Your task to perform on an android device: turn on showing notifications on the lock screen Image 0: 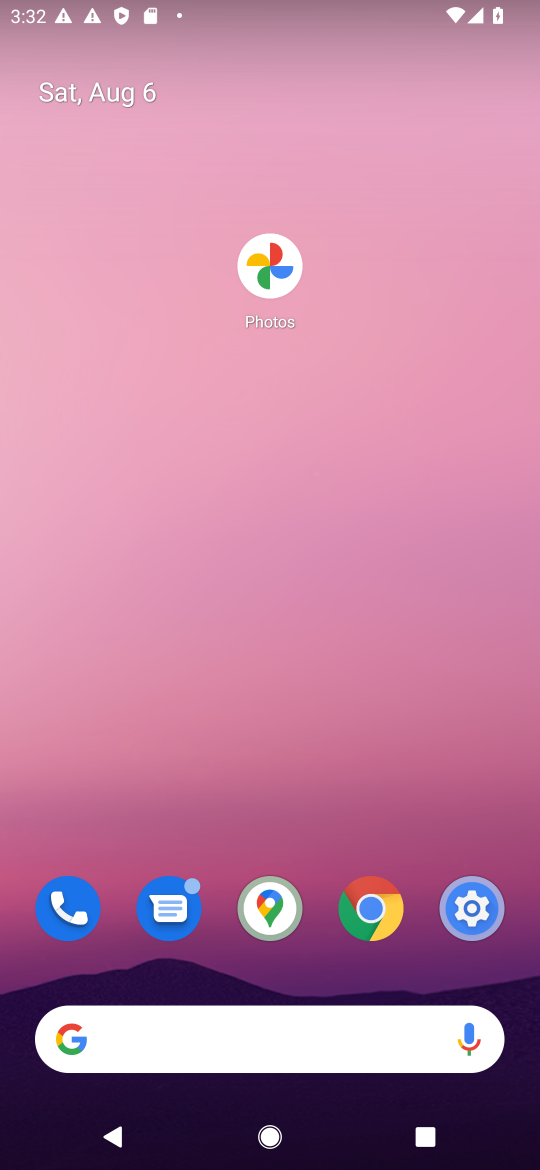
Step 0: drag from (316, 908) to (320, 410)
Your task to perform on an android device: turn on showing notifications on the lock screen Image 1: 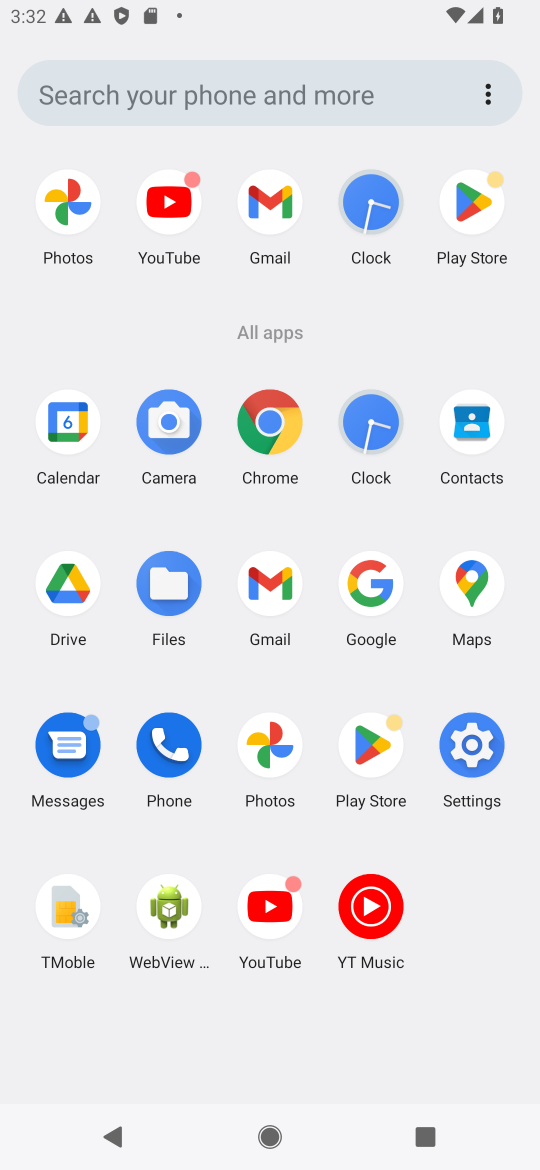
Step 1: click (471, 779)
Your task to perform on an android device: turn on showing notifications on the lock screen Image 2: 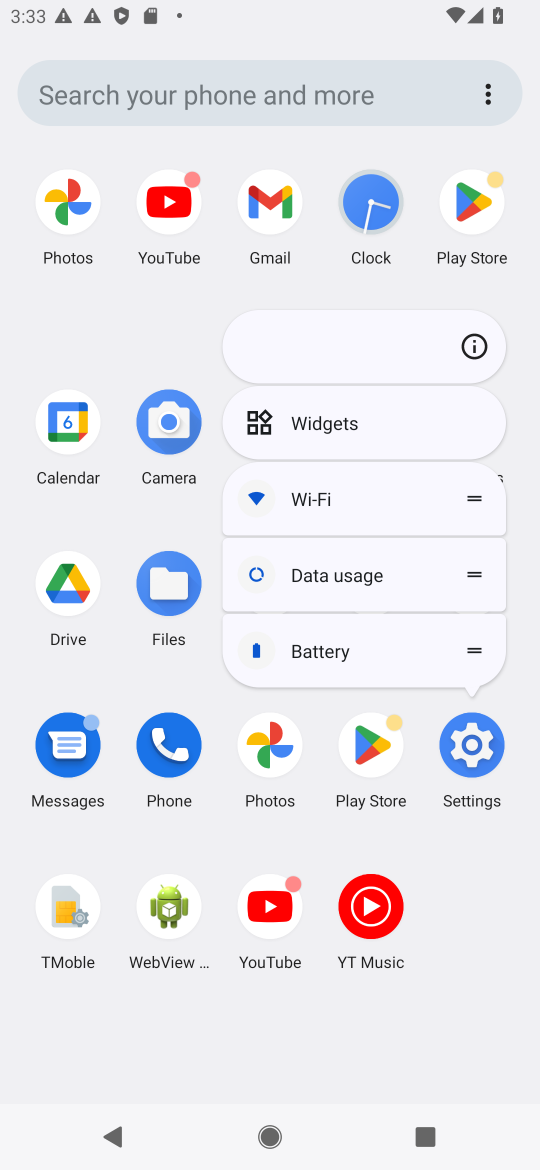
Step 2: click (471, 779)
Your task to perform on an android device: turn on showing notifications on the lock screen Image 3: 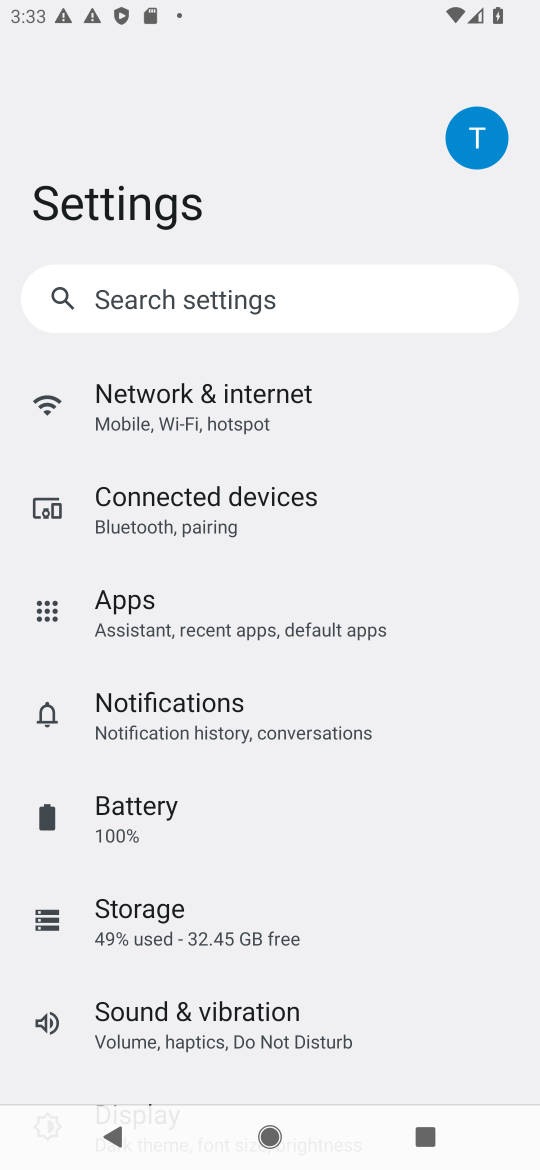
Step 3: click (253, 723)
Your task to perform on an android device: turn on showing notifications on the lock screen Image 4: 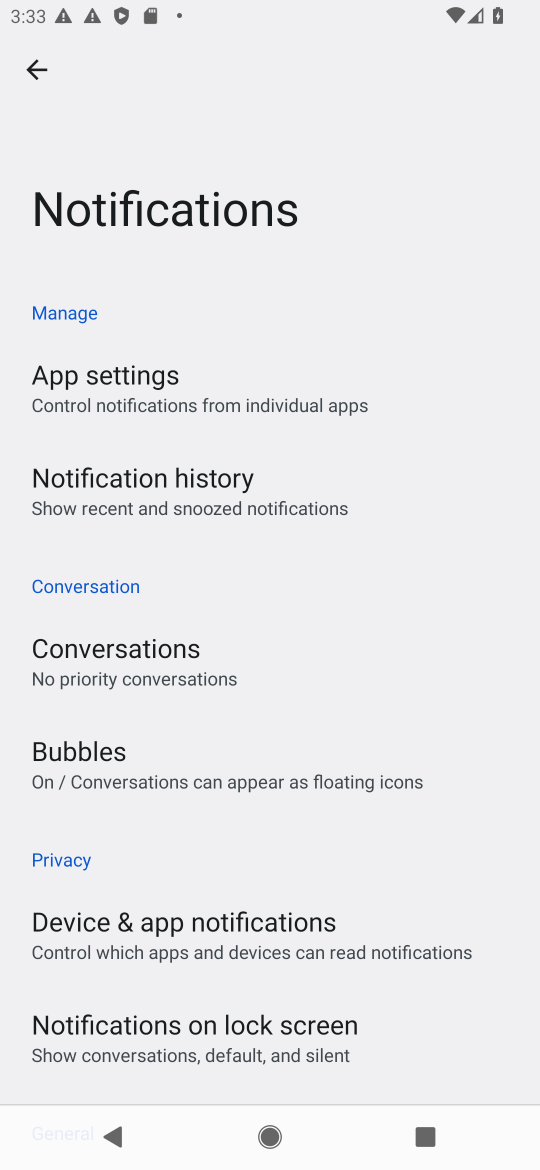
Step 4: drag from (169, 954) to (198, 589)
Your task to perform on an android device: turn on showing notifications on the lock screen Image 5: 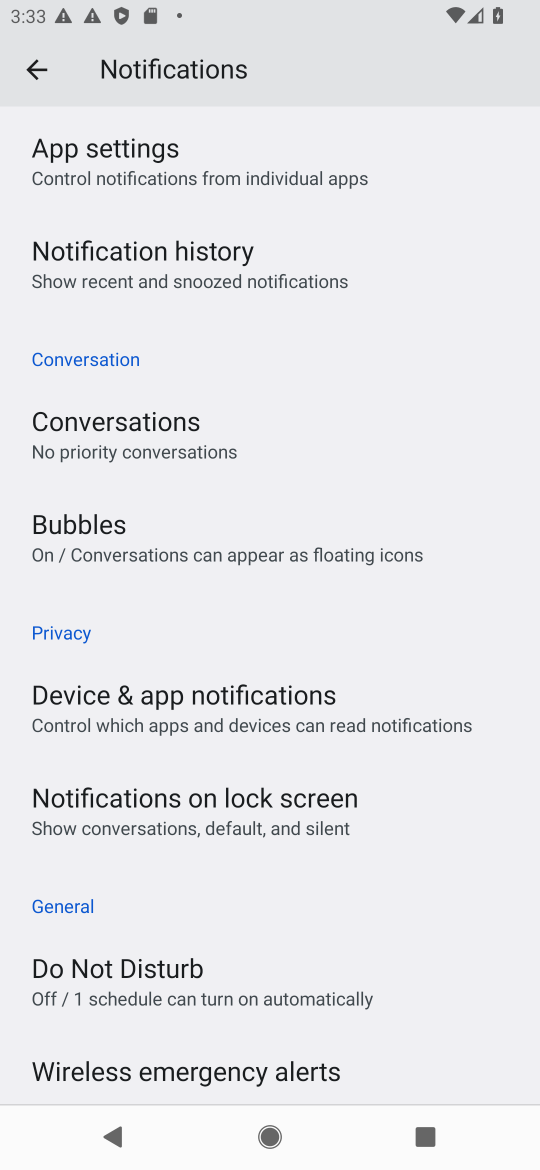
Step 5: click (198, 814)
Your task to perform on an android device: turn on showing notifications on the lock screen Image 6: 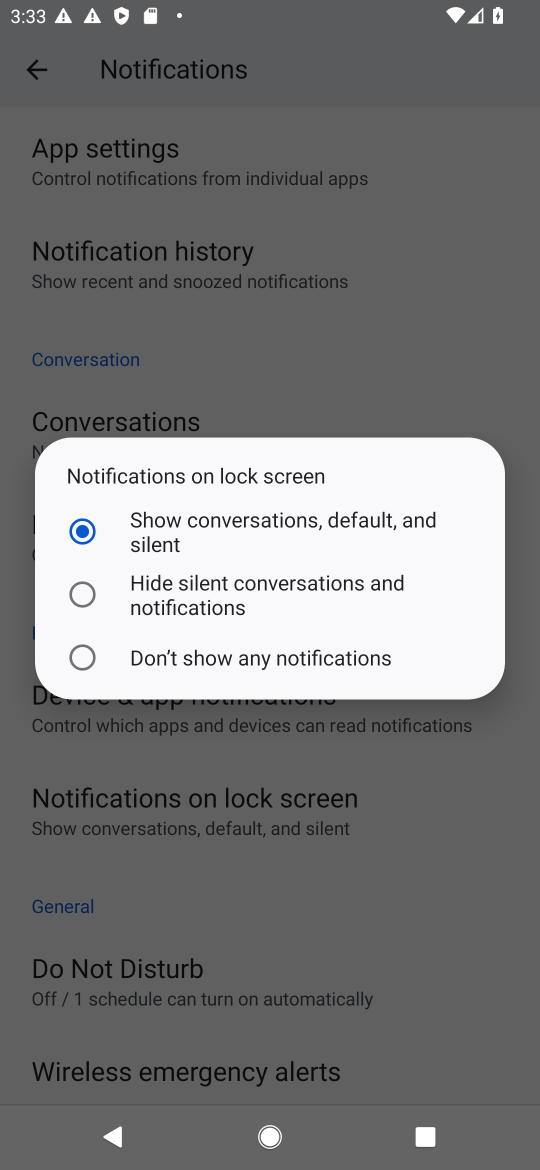
Step 6: task complete